Your task to perform on an android device: toggle improve location accuracy Image 0: 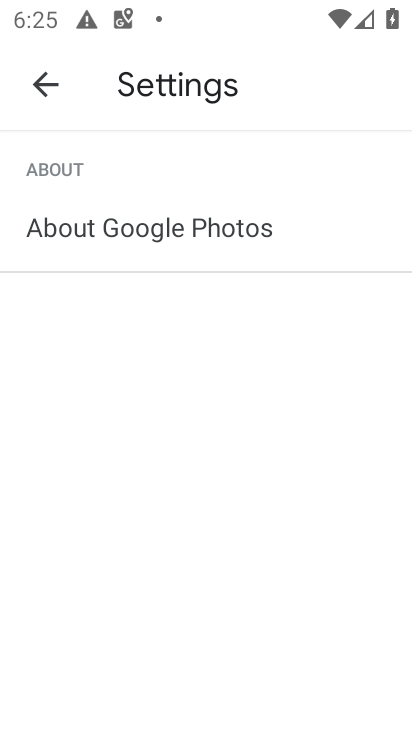
Step 0: press home button
Your task to perform on an android device: toggle improve location accuracy Image 1: 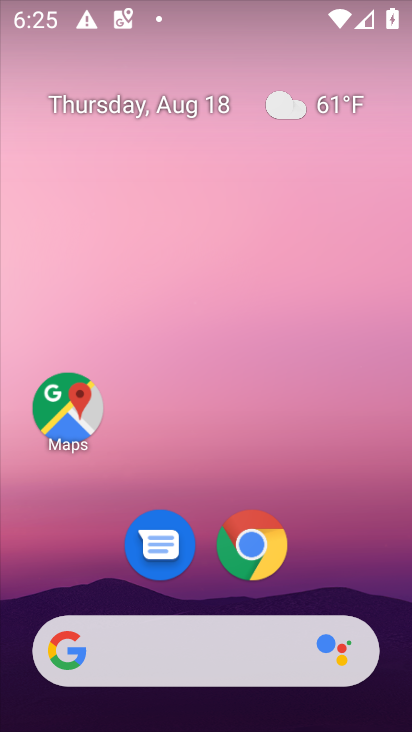
Step 1: drag from (342, 546) to (221, 45)
Your task to perform on an android device: toggle improve location accuracy Image 2: 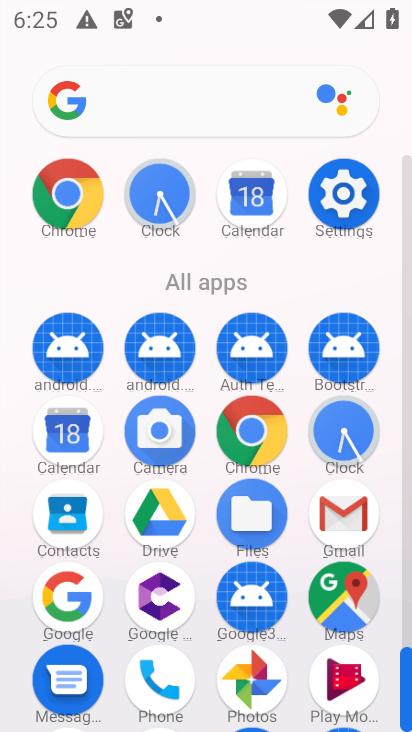
Step 2: click (345, 191)
Your task to perform on an android device: toggle improve location accuracy Image 3: 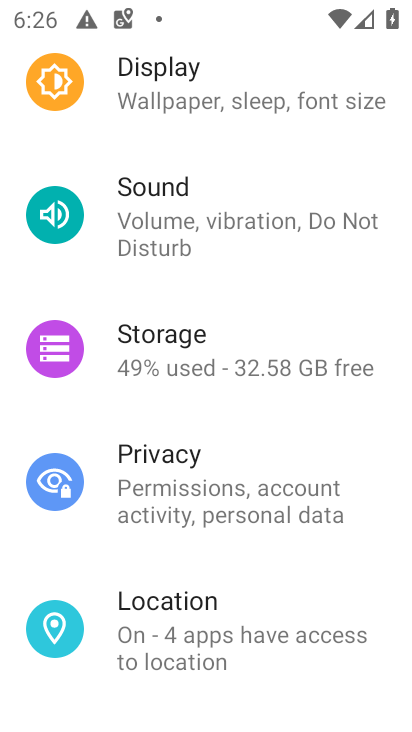
Step 3: click (182, 608)
Your task to perform on an android device: toggle improve location accuracy Image 4: 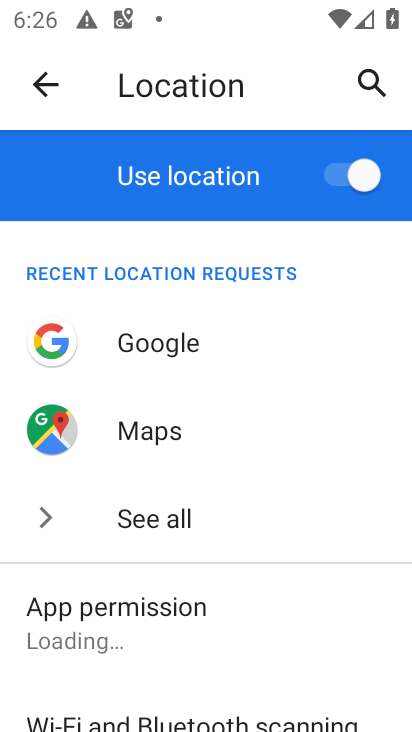
Step 4: drag from (233, 626) to (207, 292)
Your task to perform on an android device: toggle improve location accuracy Image 5: 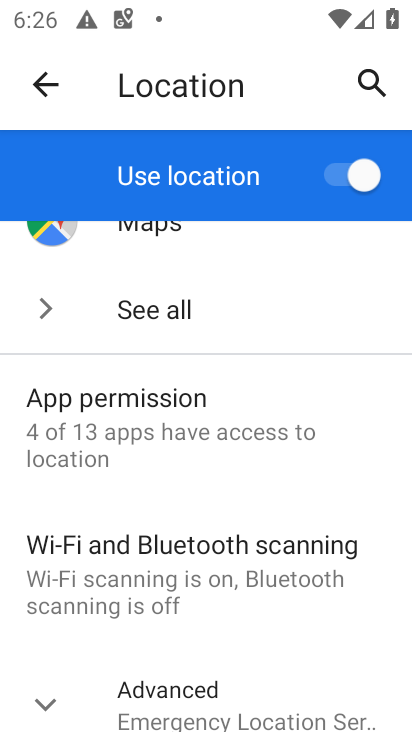
Step 5: click (51, 702)
Your task to perform on an android device: toggle improve location accuracy Image 6: 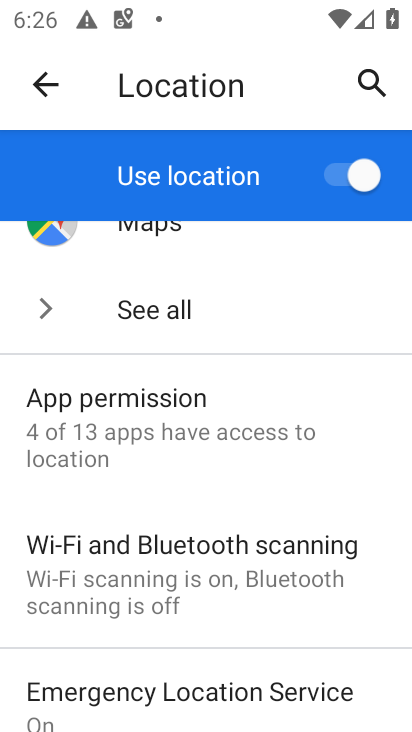
Step 6: drag from (268, 625) to (229, 409)
Your task to perform on an android device: toggle improve location accuracy Image 7: 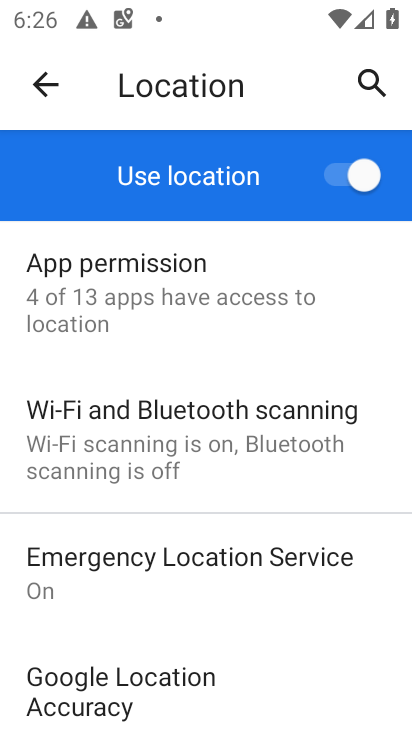
Step 7: click (129, 673)
Your task to perform on an android device: toggle improve location accuracy Image 8: 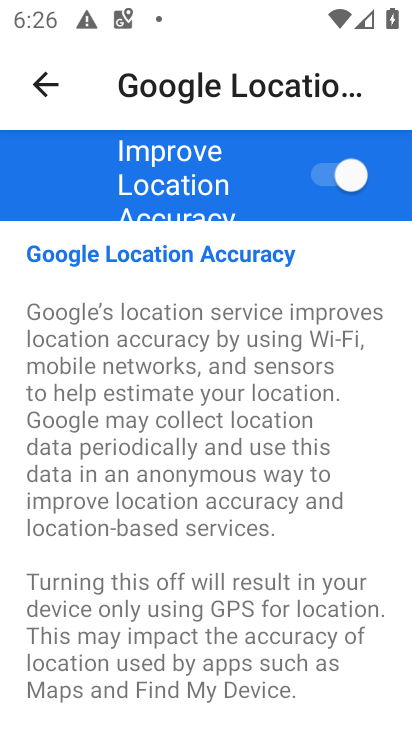
Step 8: click (346, 180)
Your task to perform on an android device: toggle improve location accuracy Image 9: 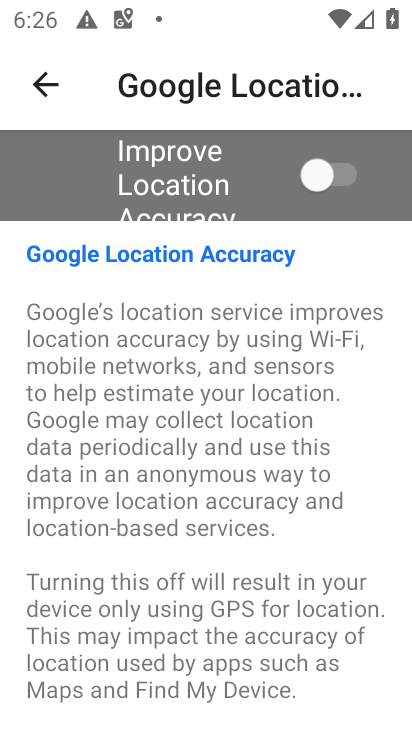
Step 9: task complete